Your task to perform on an android device: When is my next appointment? Image 0: 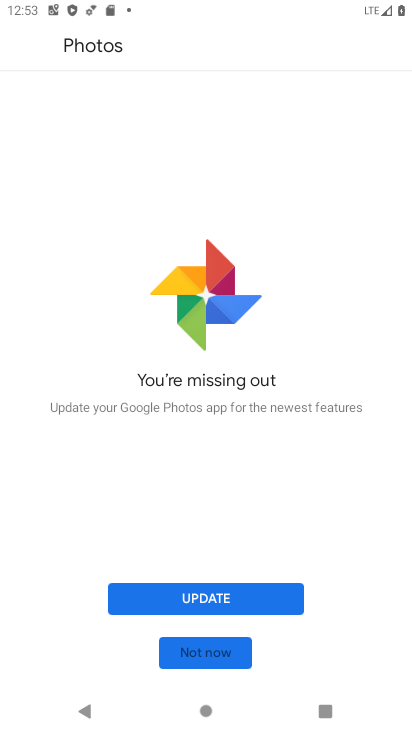
Step 0: press back button
Your task to perform on an android device: When is my next appointment? Image 1: 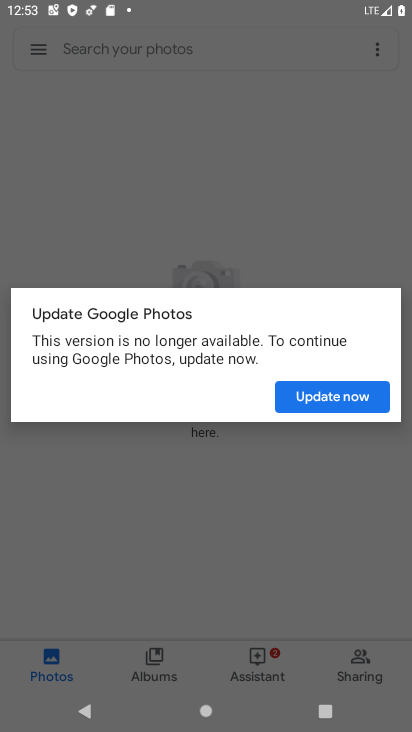
Step 1: press home button
Your task to perform on an android device: When is my next appointment? Image 2: 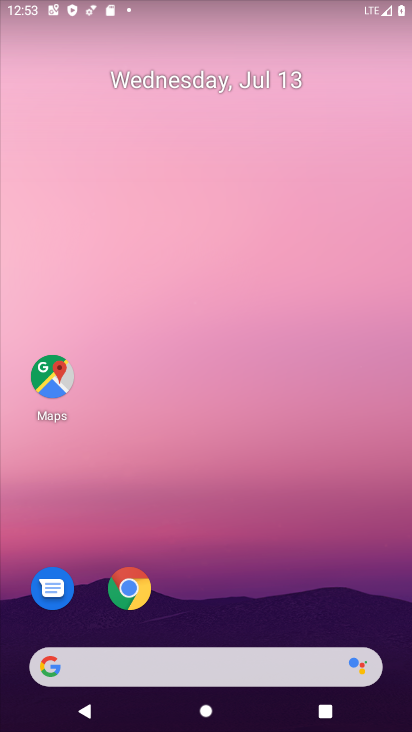
Step 2: drag from (394, 666) to (342, 157)
Your task to perform on an android device: When is my next appointment? Image 3: 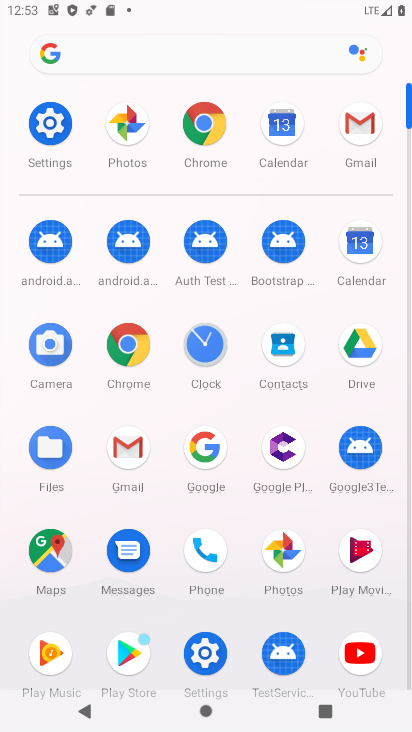
Step 3: click (355, 244)
Your task to perform on an android device: When is my next appointment? Image 4: 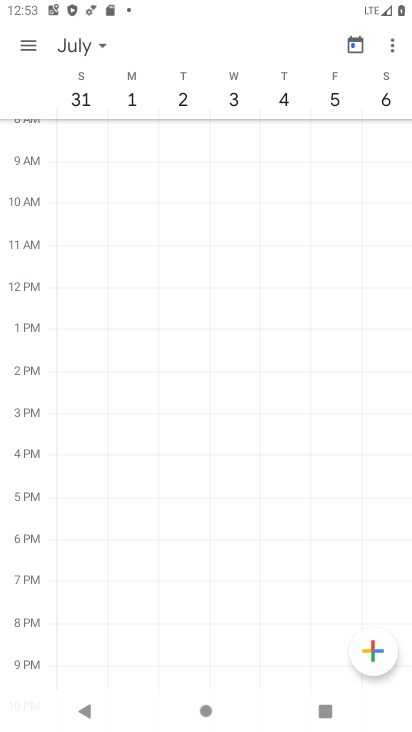
Step 4: click (29, 42)
Your task to perform on an android device: When is my next appointment? Image 5: 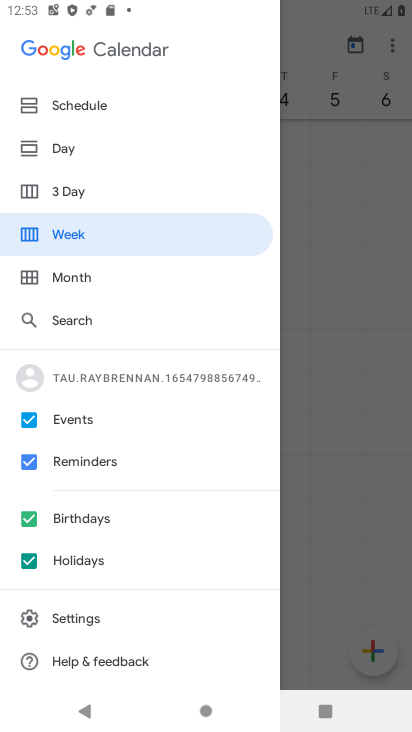
Step 5: click (72, 103)
Your task to perform on an android device: When is my next appointment? Image 6: 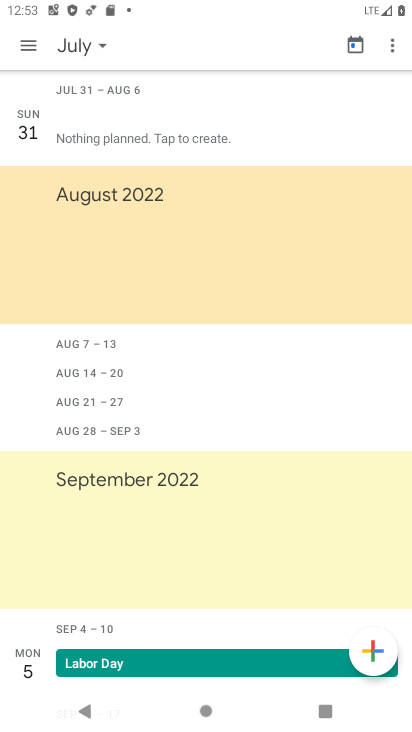
Step 6: click (24, 41)
Your task to perform on an android device: When is my next appointment? Image 7: 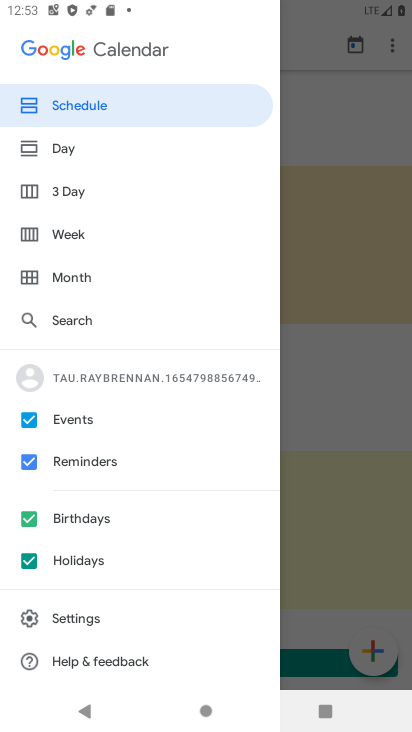
Step 7: click (22, 561)
Your task to perform on an android device: When is my next appointment? Image 8: 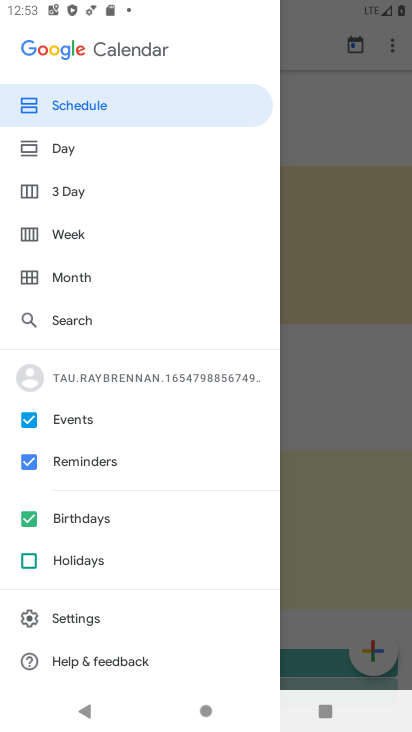
Step 8: click (27, 515)
Your task to perform on an android device: When is my next appointment? Image 9: 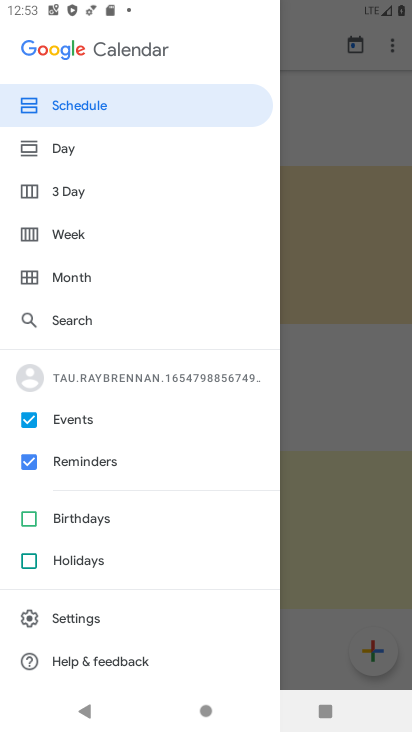
Step 9: click (27, 466)
Your task to perform on an android device: When is my next appointment? Image 10: 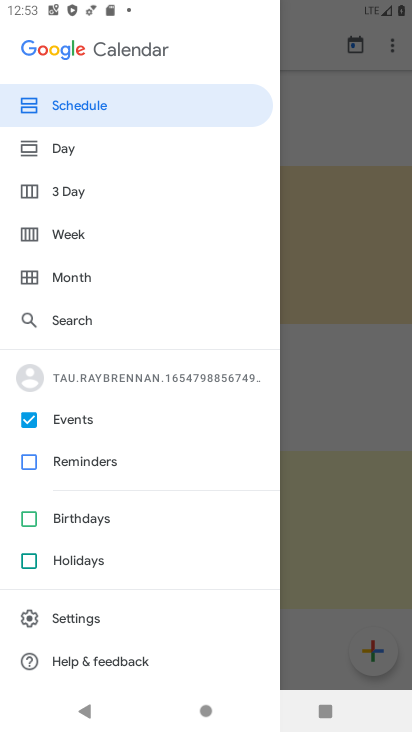
Step 10: click (98, 108)
Your task to perform on an android device: When is my next appointment? Image 11: 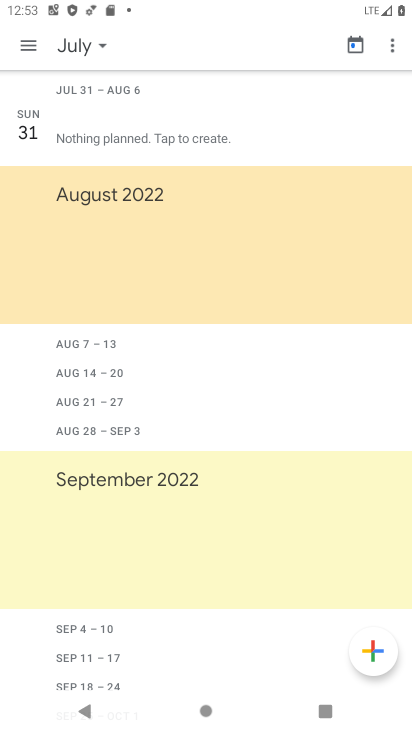
Step 11: task complete